Your task to perform on an android device: turn off notifications settings in the gmail app Image 0: 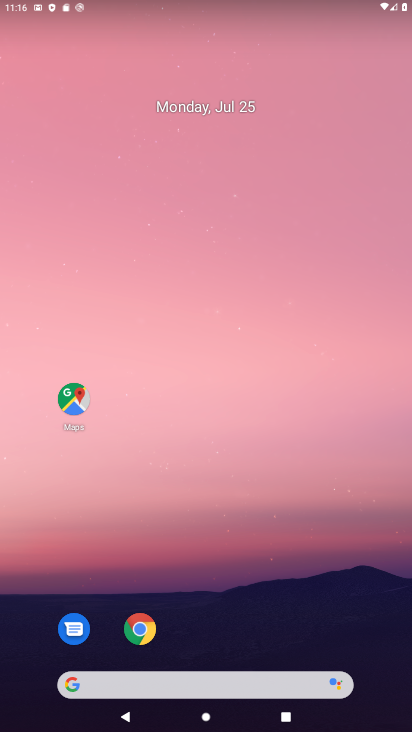
Step 0: drag from (187, 558) to (237, 123)
Your task to perform on an android device: turn off notifications settings in the gmail app Image 1: 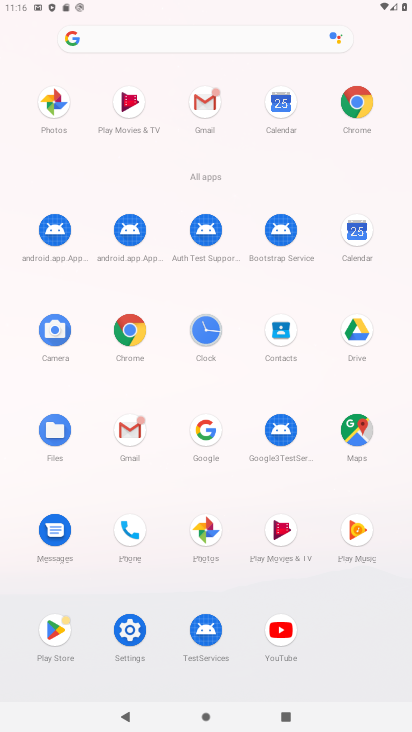
Step 1: click (131, 431)
Your task to perform on an android device: turn off notifications settings in the gmail app Image 2: 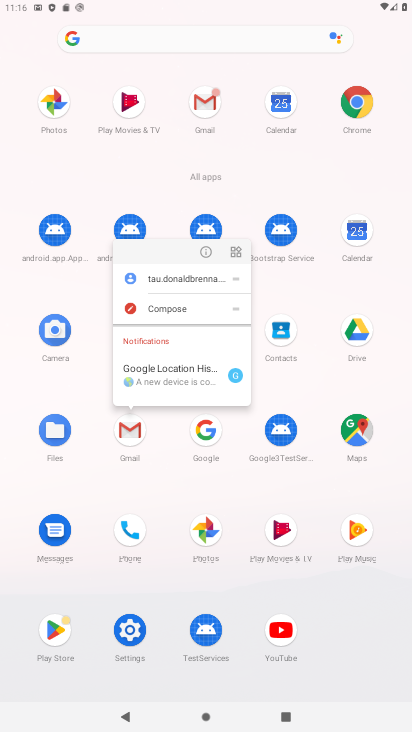
Step 2: click (206, 252)
Your task to perform on an android device: turn off notifications settings in the gmail app Image 3: 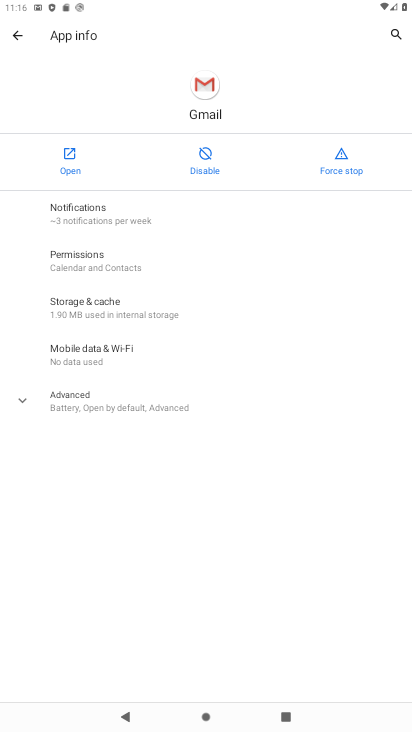
Step 3: click (60, 157)
Your task to perform on an android device: turn off notifications settings in the gmail app Image 4: 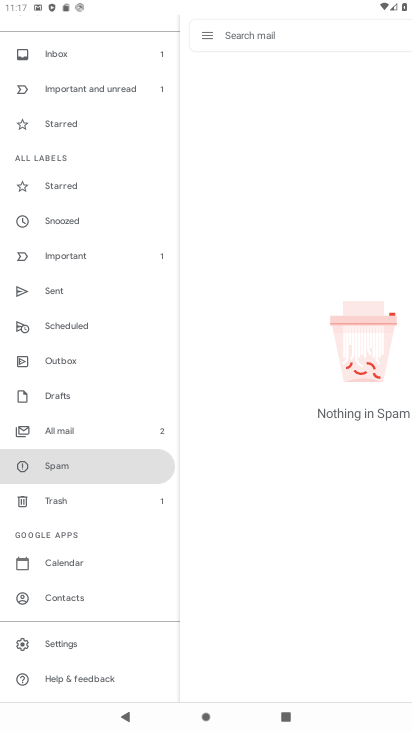
Step 4: click (64, 641)
Your task to perform on an android device: turn off notifications settings in the gmail app Image 5: 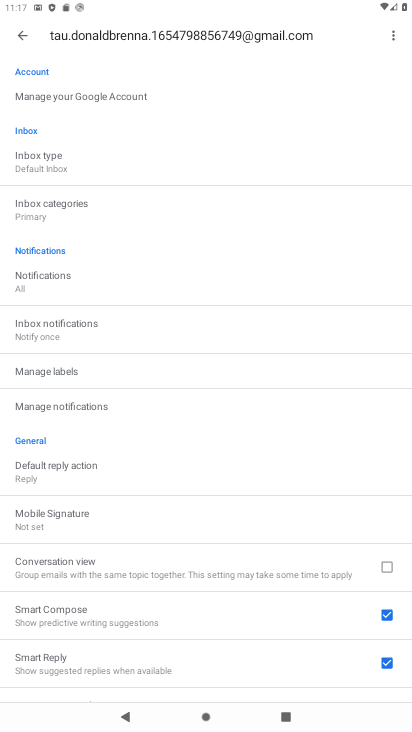
Step 5: click (83, 400)
Your task to perform on an android device: turn off notifications settings in the gmail app Image 6: 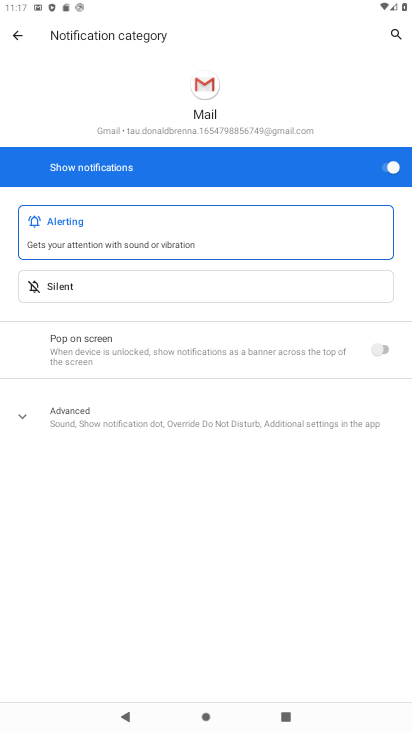
Step 6: drag from (207, 478) to (250, 188)
Your task to perform on an android device: turn off notifications settings in the gmail app Image 7: 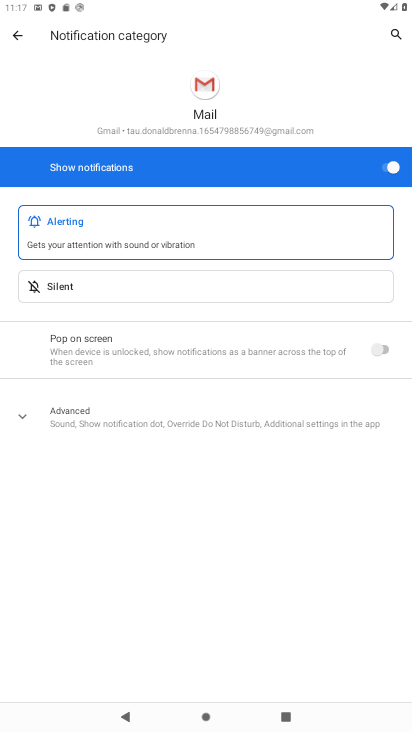
Step 7: click (132, 419)
Your task to perform on an android device: turn off notifications settings in the gmail app Image 8: 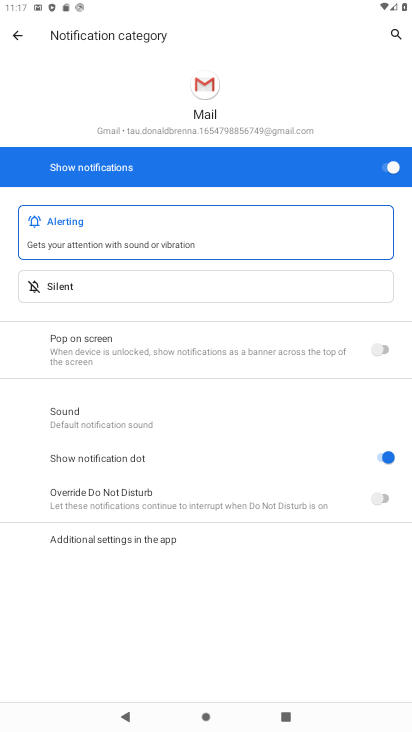
Step 8: click (387, 165)
Your task to perform on an android device: turn off notifications settings in the gmail app Image 9: 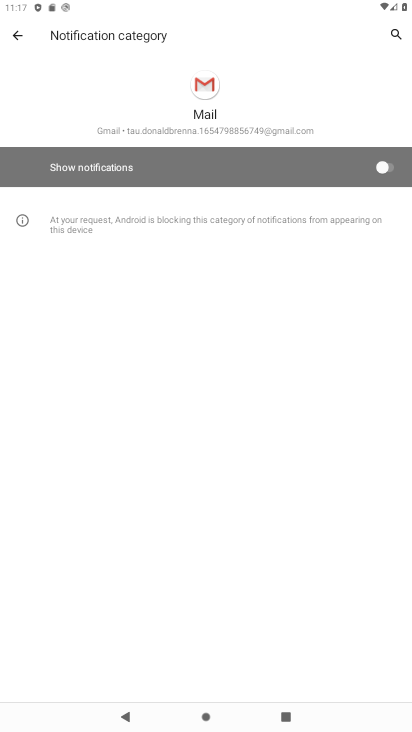
Step 9: task complete